Your task to perform on an android device: open a bookmark in the chrome app Image 0: 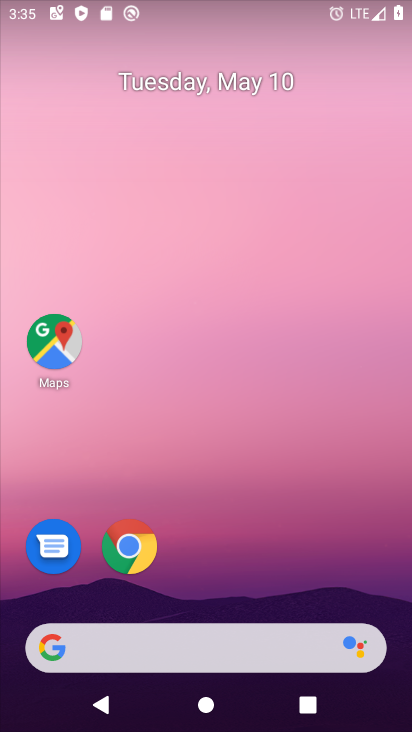
Step 0: click (124, 554)
Your task to perform on an android device: open a bookmark in the chrome app Image 1: 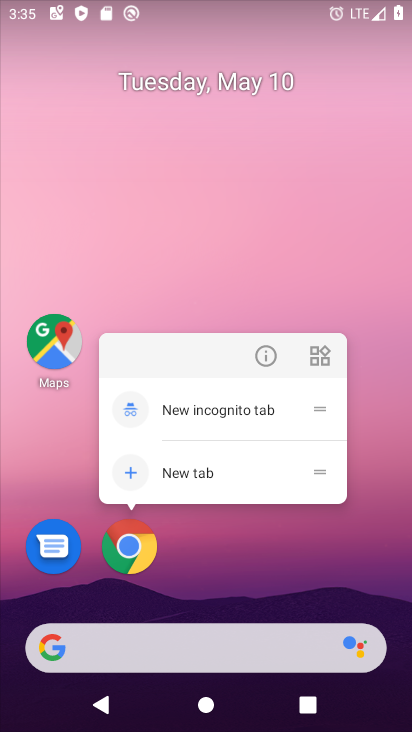
Step 1: click (127, 554)
Your task to perform on an android device: open a bookmark in the chrome app Image 2: 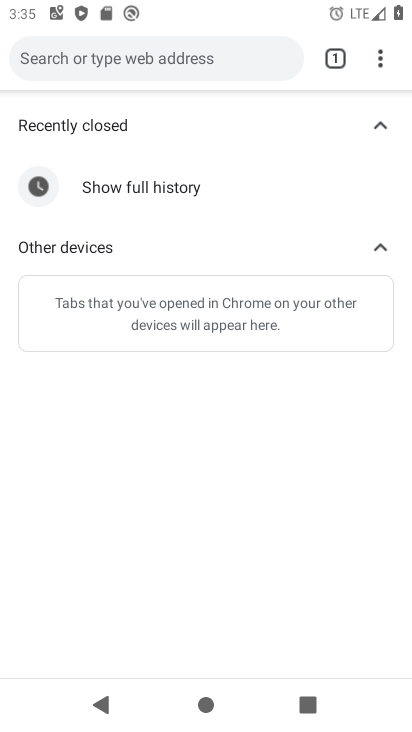
Step 2: click (381, 59)
Your task to perform on an android device: open a bookmark in the chrome app Image 3: 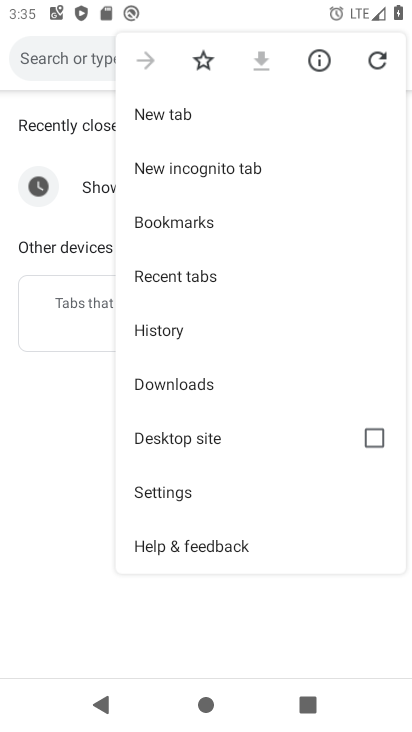
Step 3: click (197, 210)
Your task to perform on an android device: open a bookmark in the chrome app Image 4: 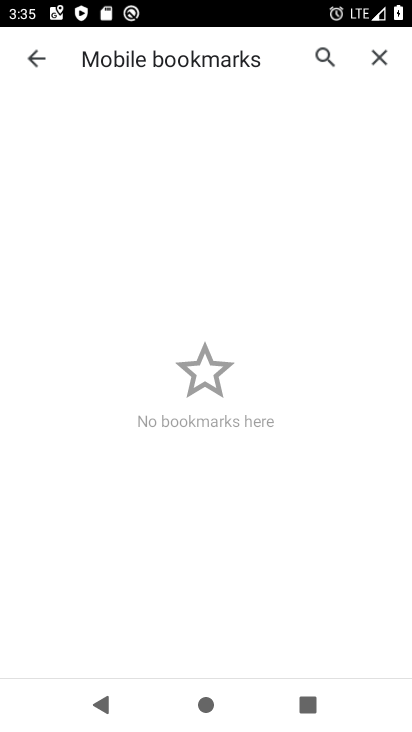
Step 4: click (44, 56)
Your task to perform on an android device: open a bookmark in the chrome app Image 5: 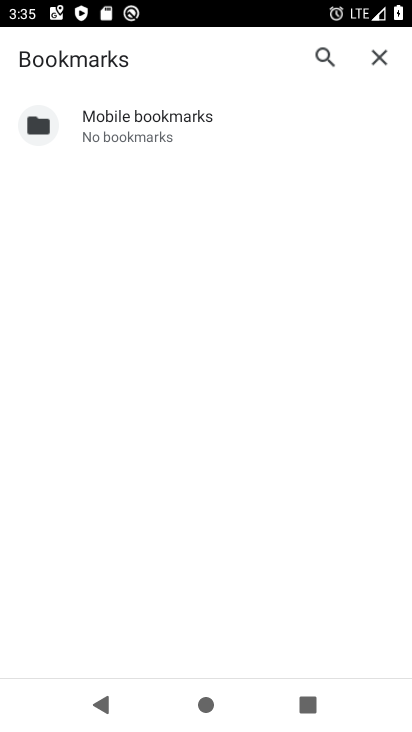
Step 5: click (375, 59)
Your task to perform on an android device: open a bookmark in the chrome app Image 6: 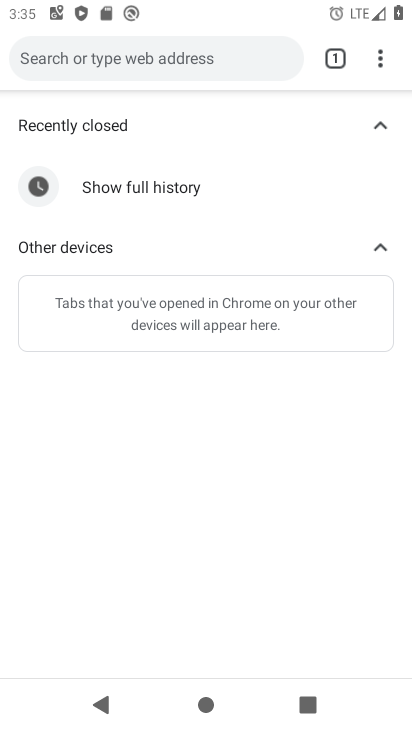
Step 6: click (383, 59)
Your task to perform on an android device: open a bookmark in the chrome app Image 7: 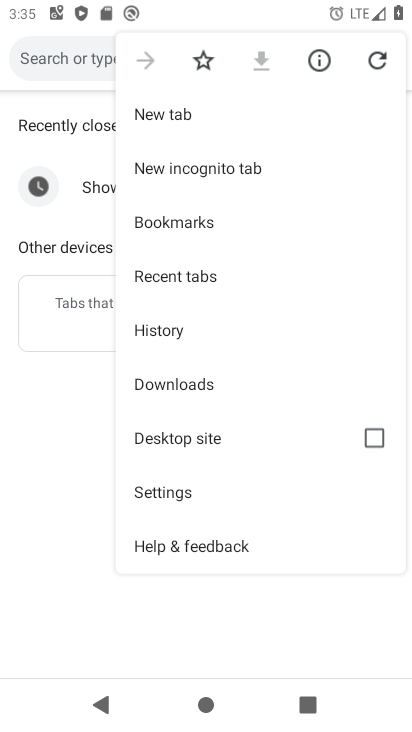
Step 7: click (179, 114)
Your task to perform on an android device: open a bookmark in the chrome app Image 8: 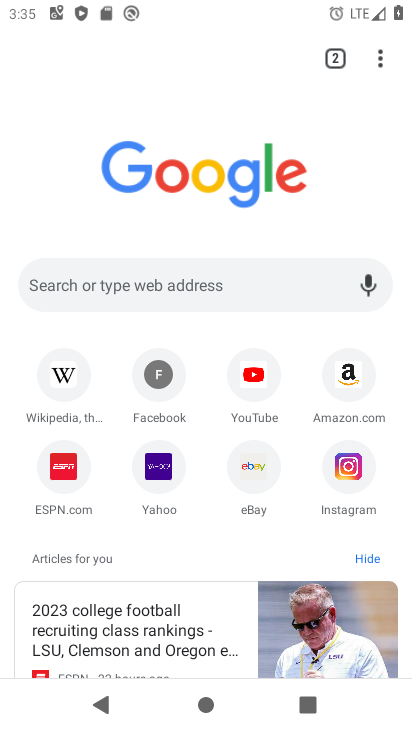
Step 8: click (73, 393)
Your task to perform on an android device: open a bookmark in the chrome app Image 9: 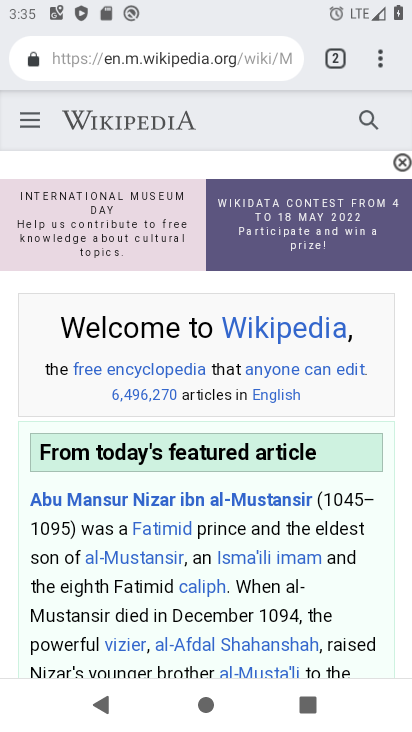
Step 9: task complete